Your task to perform on an android device: install app "Instagram" Image 0: 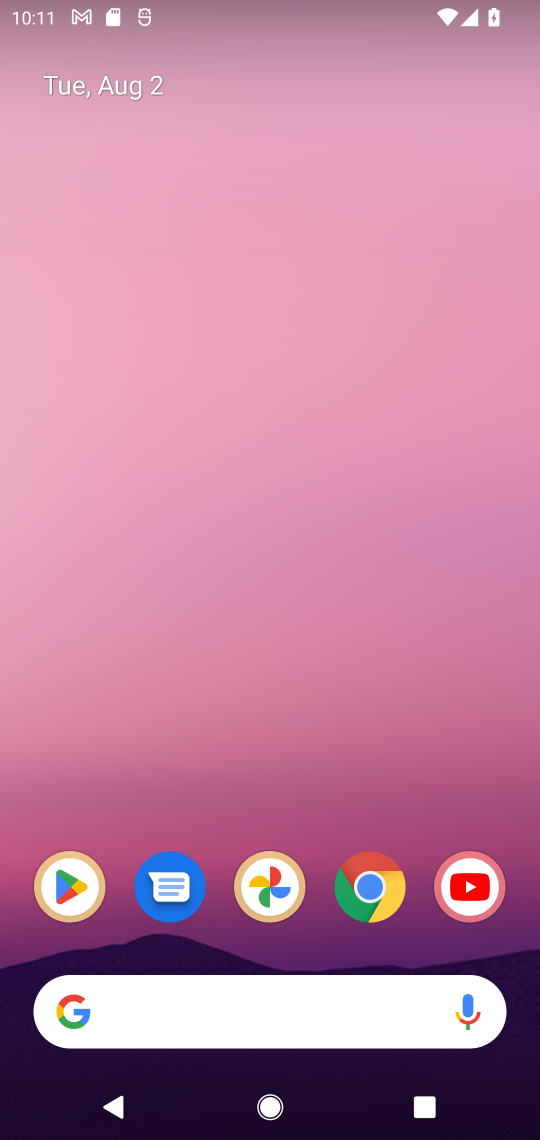
Step 0: drag from (264, 959) to (75, 1022)
Your task to perform on an android device: install app "Instagram" Image 1: 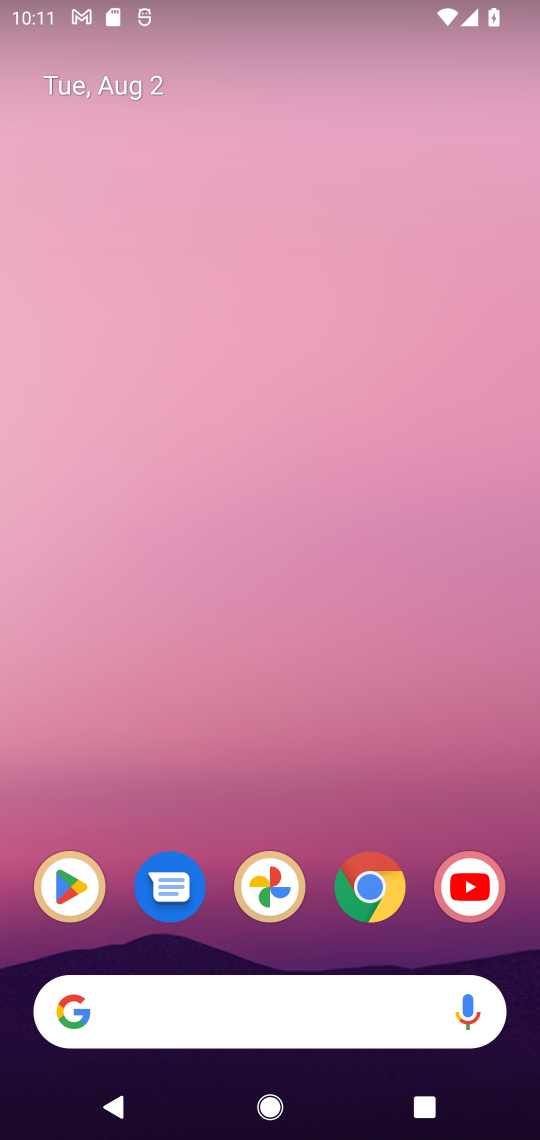
Step 1: drag from (278, 957) to (217, 169)
Your task to perform on an android device: install app "Instagram" Image 2: 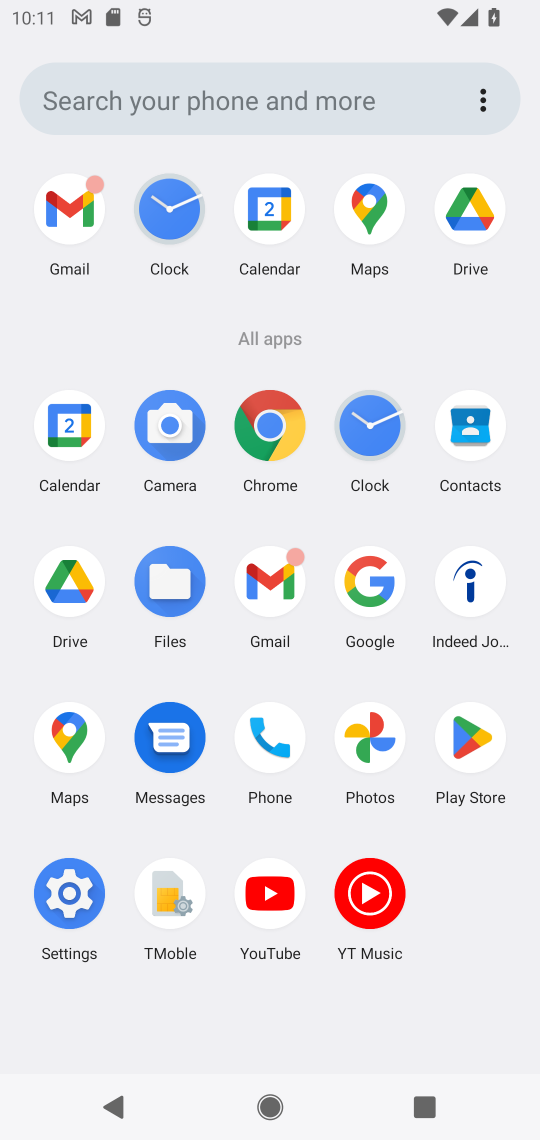
Step 2: click (484, 734)
Your task to perform on an android device: install app "Instagram" Image 3: 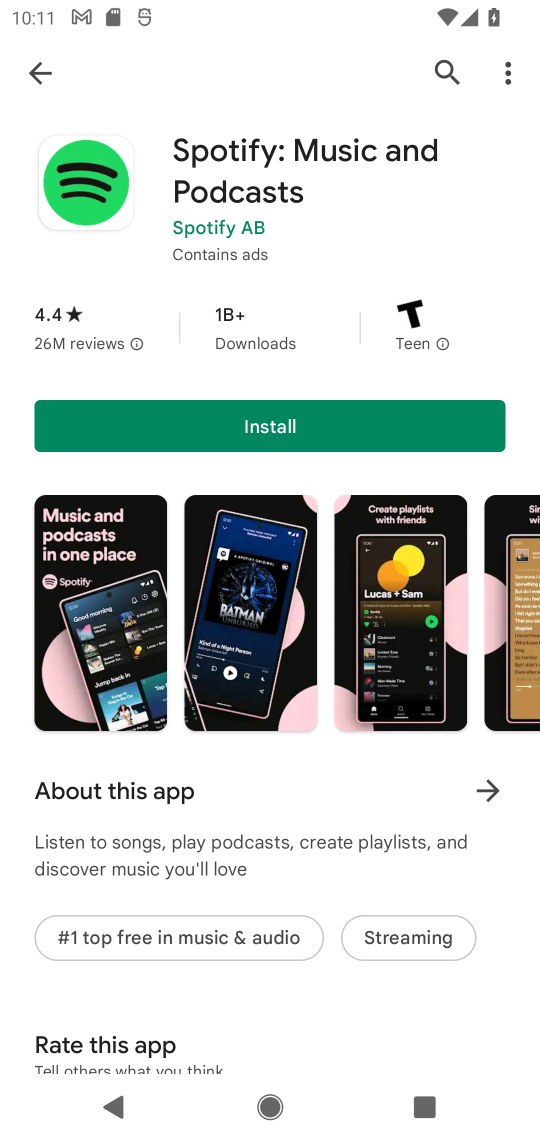
Step 3: click (50, 74)
Your task to perform on an android device: install app "Instagram" Image 4: 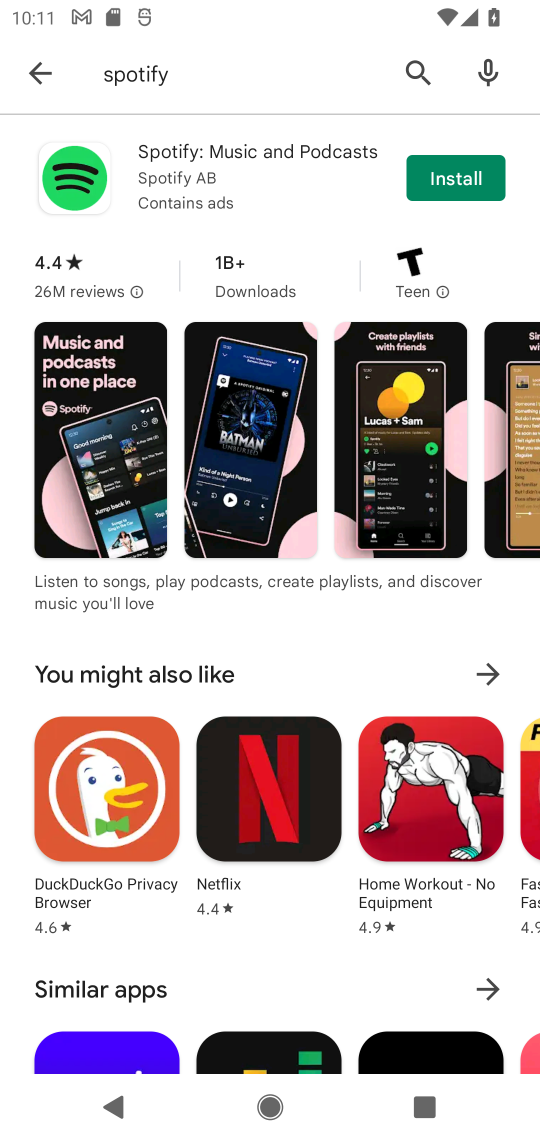
Step 4: click (37, 69)
Your task to perform on an android device: install app "Instagram" Image 5: 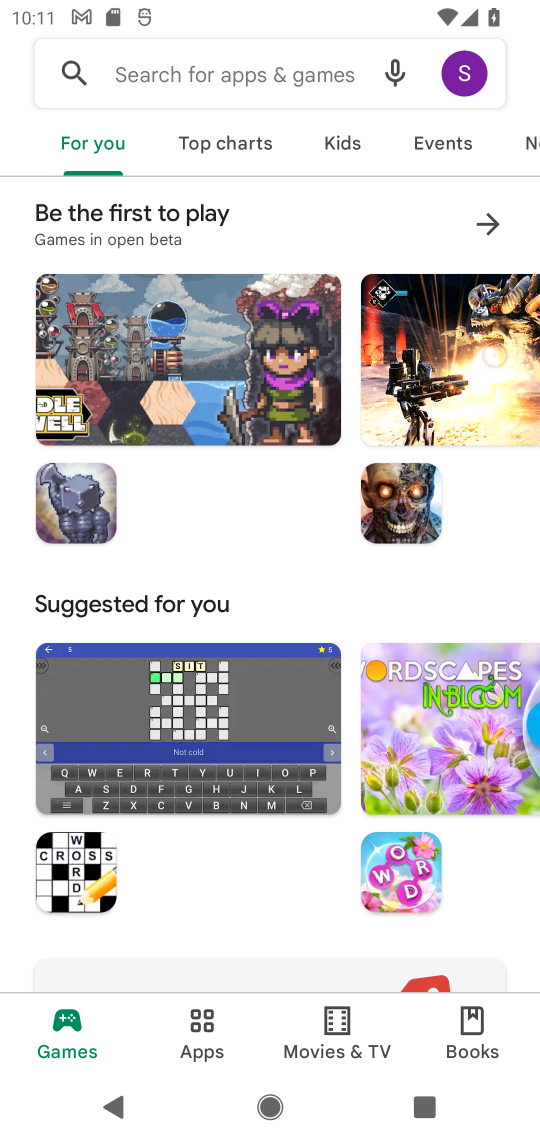
Step 5: click (149, 79)
Your task to perform on an android device: install app "Instagram" Image 6: 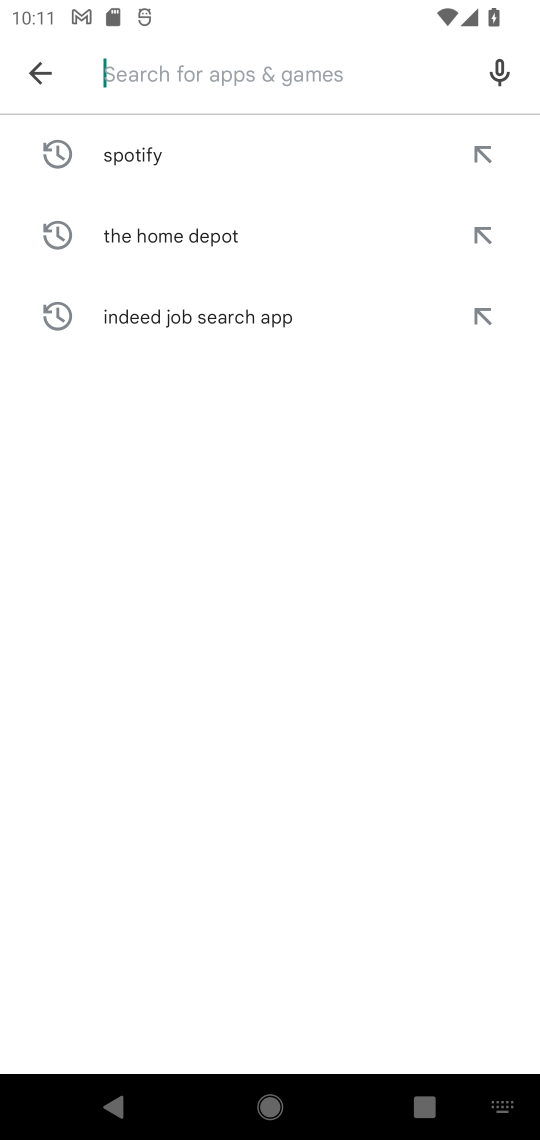
Step 6: type "Instagram"
Your task to perform on an android device: install app "Instagram" Image 7: 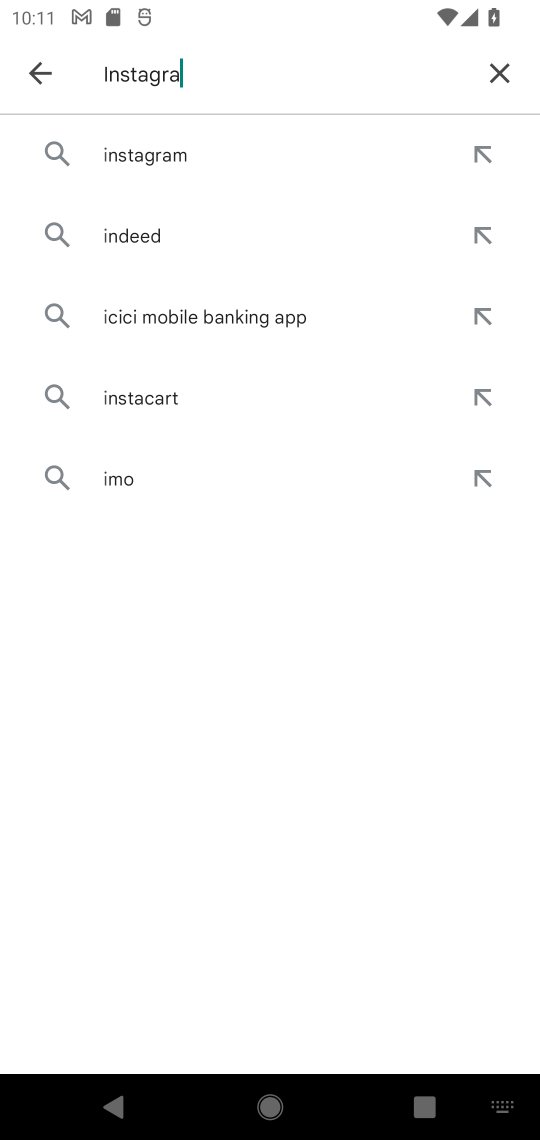
Step 7: type ""
Your task to perform on an android device: install app "Instagram" Image 8: 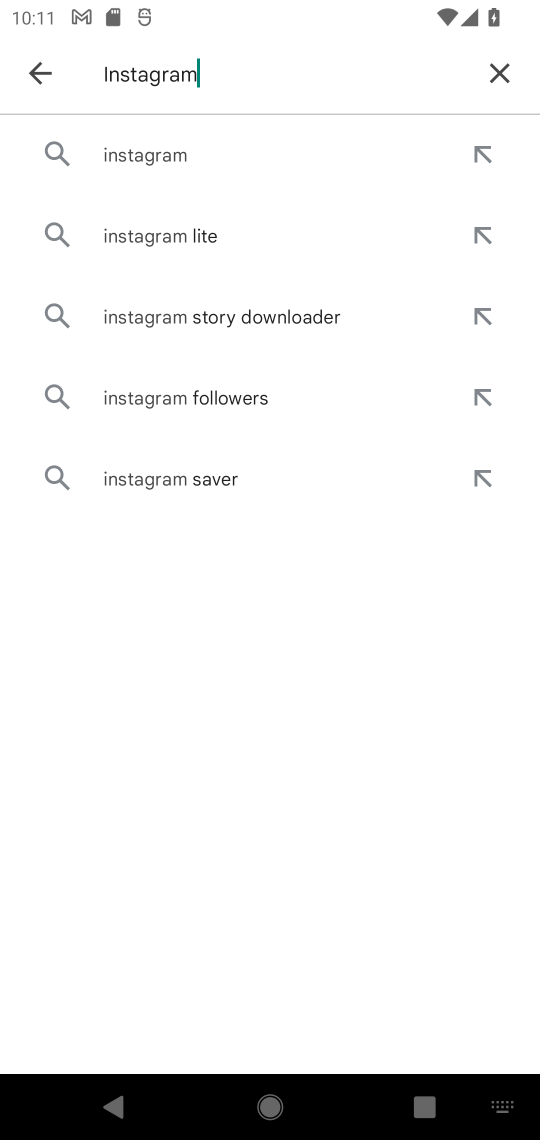
Step 8: click (135, 146)
Your task to perform on an android device: install app "Instagram" Image 9: 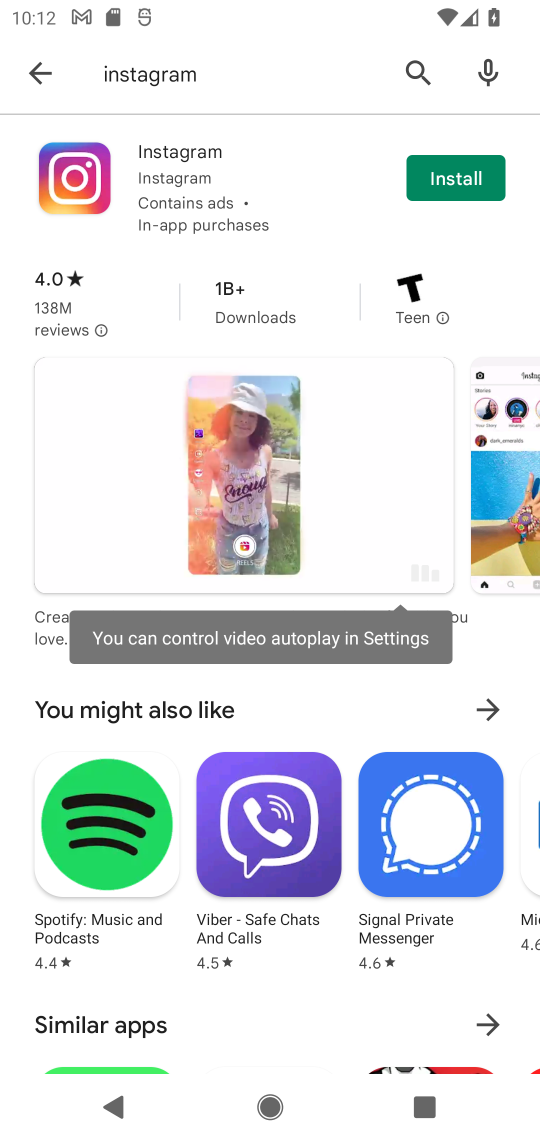
Step 9: click (445, 182)
Your task to perform on an android device: install app "Instagram" Image 10: 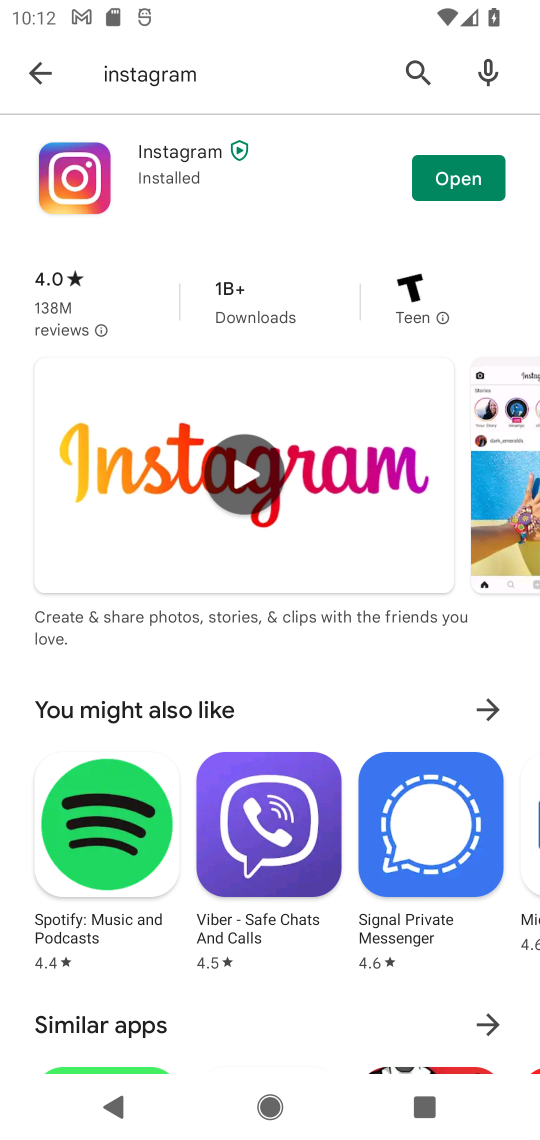
Step 10: click (450, 174)
Your task to perform on an android device: install app "Instagram" Image 11: 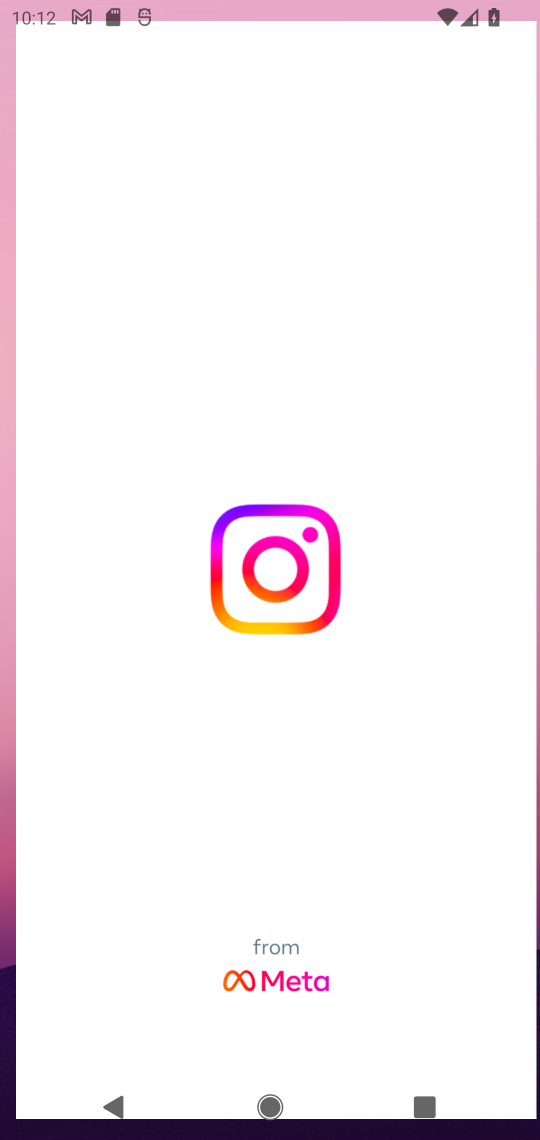
Step 11: task complete